Your task to perform on an android device: Open Wikipedia Image 0: 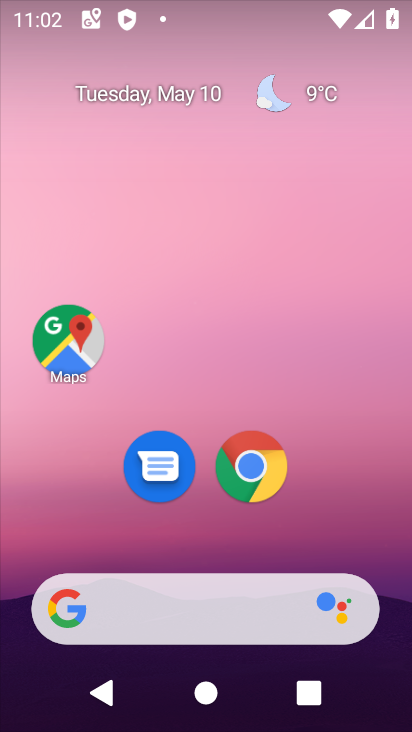
Step 0: click (233, 479)
Your task to perform on an android device: Open Wikipedia Image 1: 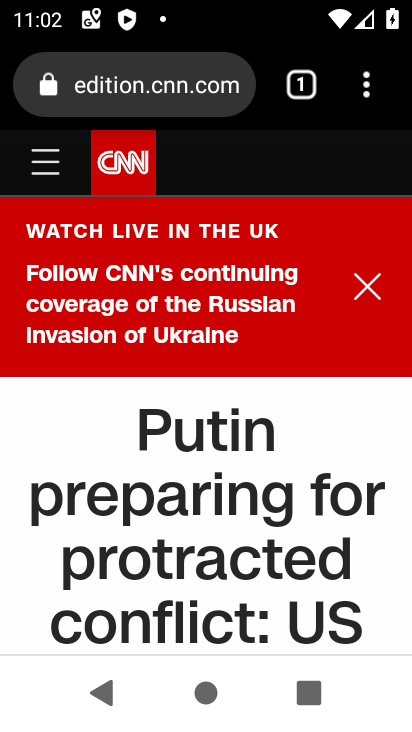
Step 1: click (170, 72)
Your task to perform on an android device: Open Wikipedia Image 2: 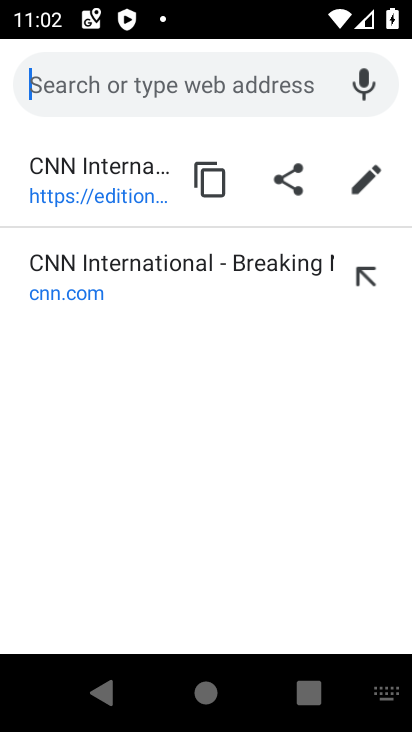
Step 2: type "wikipedia"
Your task to perform on an android device: Open Wikipedia Image 3: 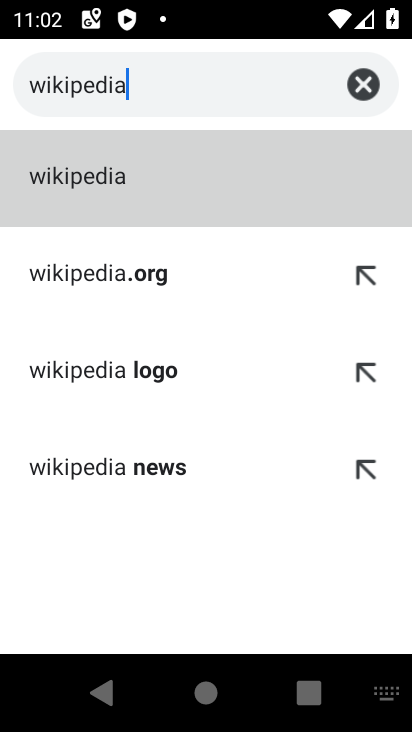
Step 3: click (101, 163)
Your task to perform on an android device: Open Wikipedia Image 4: 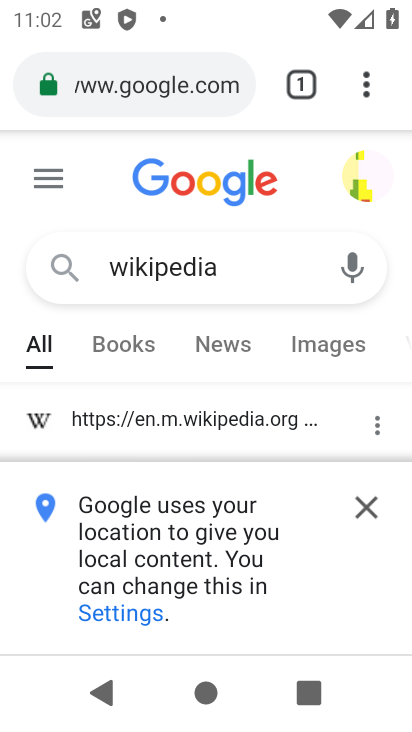
Step 4: drag from (164, 361) to (145, 176)
Your task to perform on an android device: Open Wikipedia Image 5: 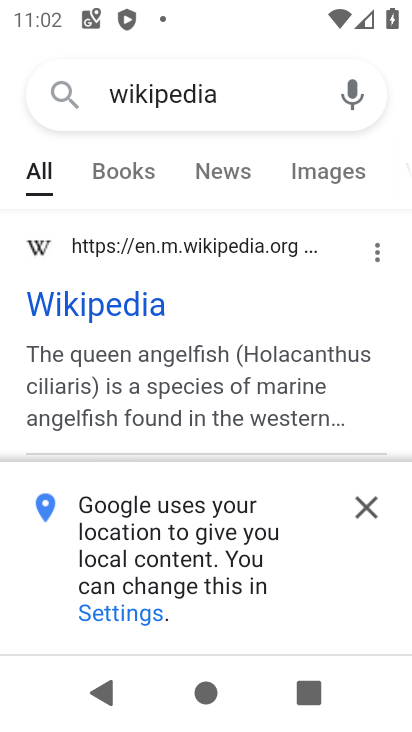
Step 5: click (73, 306)
Your task to perform on an android device: Open Wikipedia Image 6: 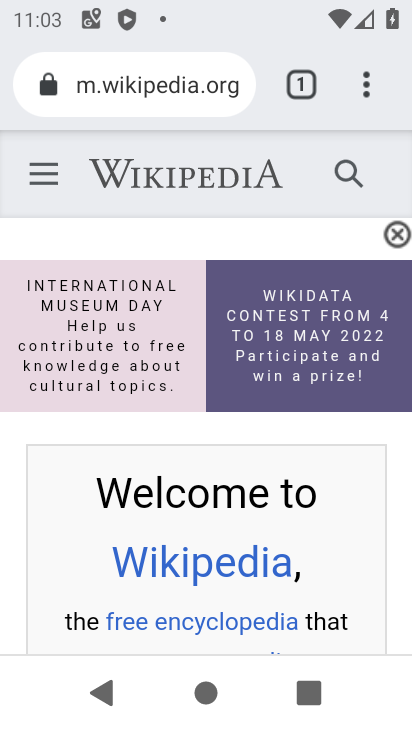
Step 6: task complete